Your task to perform on an android device: change text size in settings app Image 0: 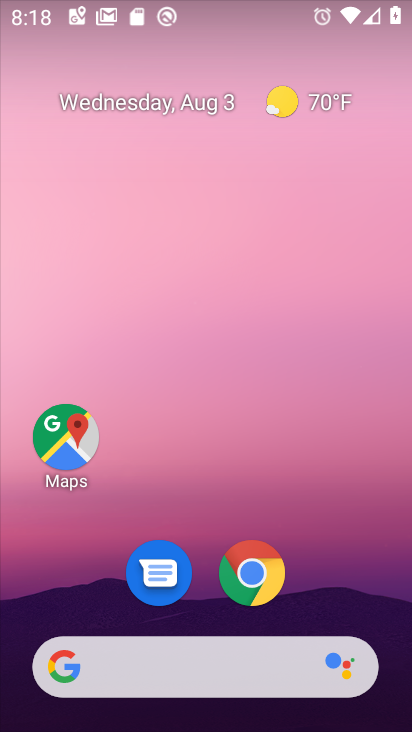
Step 0: drag from (342, 610) to (333, 0)
Your task to perform on an android device: change text size in settings app Image 1: 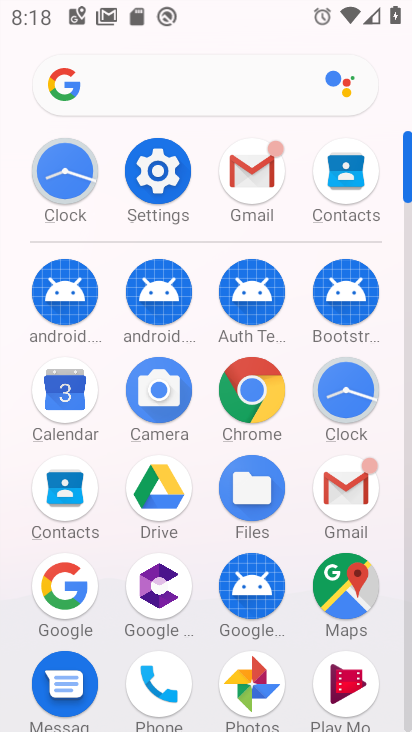
Step 1: click (152, 178)
Your task to perform on an android device: change text size in settings app Image 2: 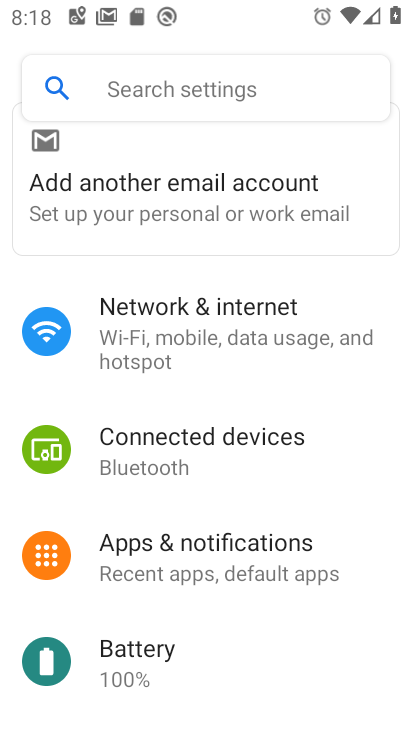
Step 2: drag from (295, 619) to (261, 206)
Your task to perform on an android device: change text size in settings app Image 3: 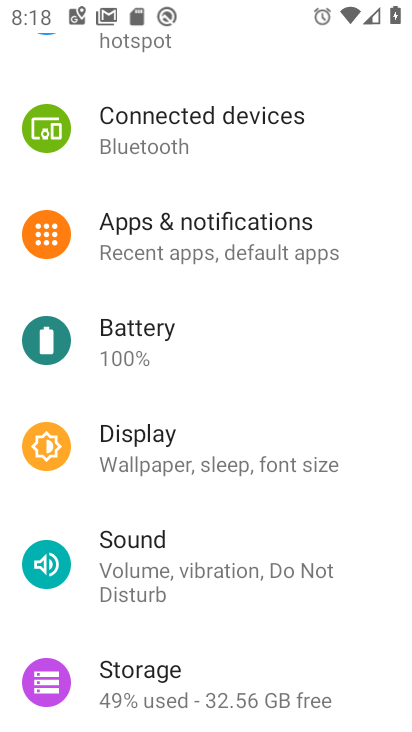
Step 3: click (141, 452)
Your task to perform on an android device: change text size in settings app Image 4: 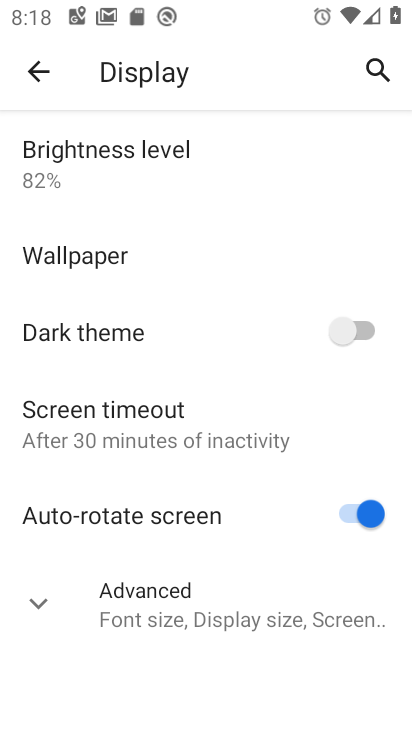
Step 4: click (38, 610)
Your task to perform on an android device: change text size in settings app Image 5: 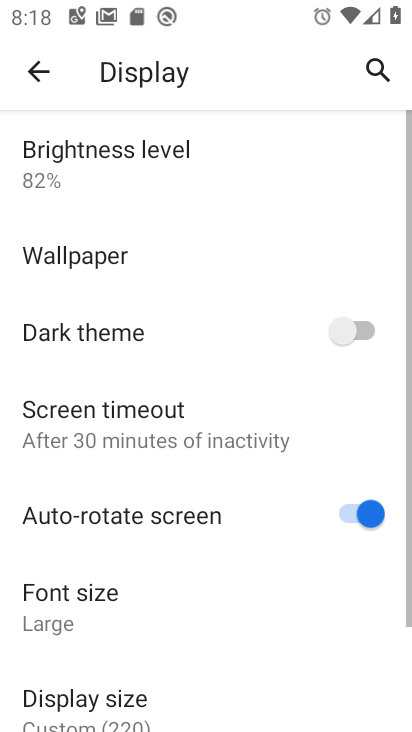
Step 5: click (38, 610)
Your task to perform on an android device: change text size in settings app Image 6: 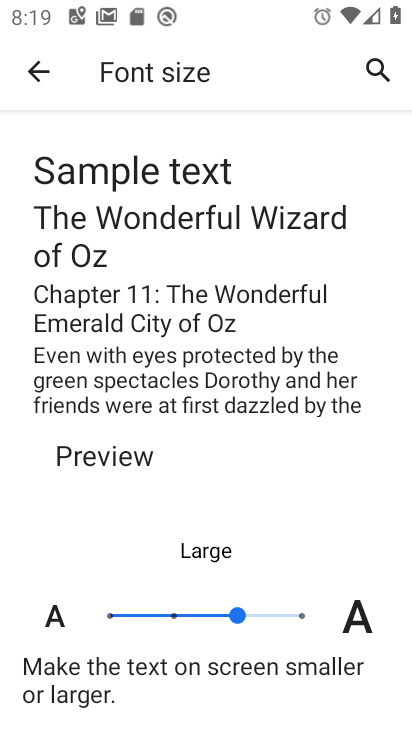
Step 6: click (308, 622)
Your task to perform on an android device: change text size in settings app Image 7: 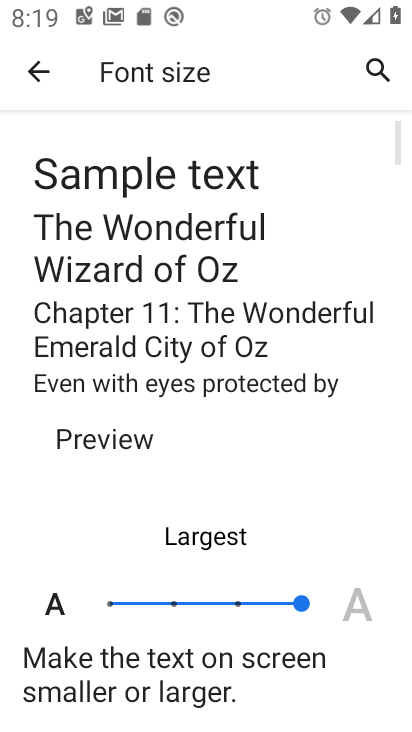
Step 7: task complete